Your task to perform on an android device: Go to Android settings Image 0: 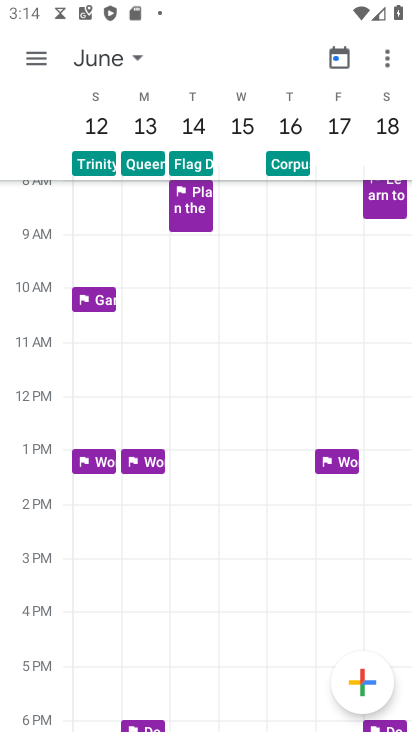
Step 0: press home button
Your task to perform on an android device: Go to Android settings Image 1: 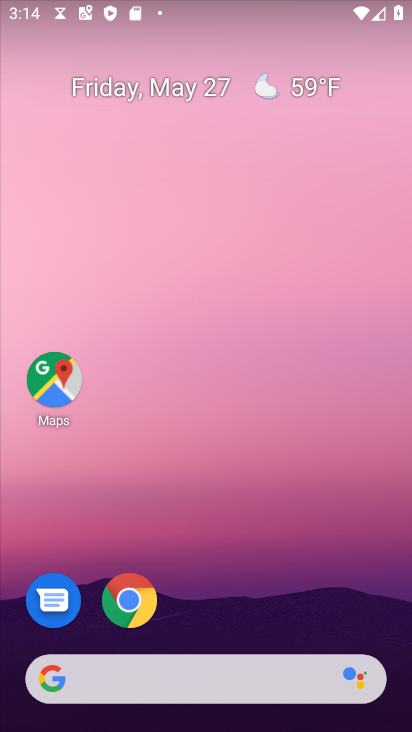
Step 1: drag from (244, 584) to (245, 43)
Your task to perform on an android device: Go to Android settings Image 2: 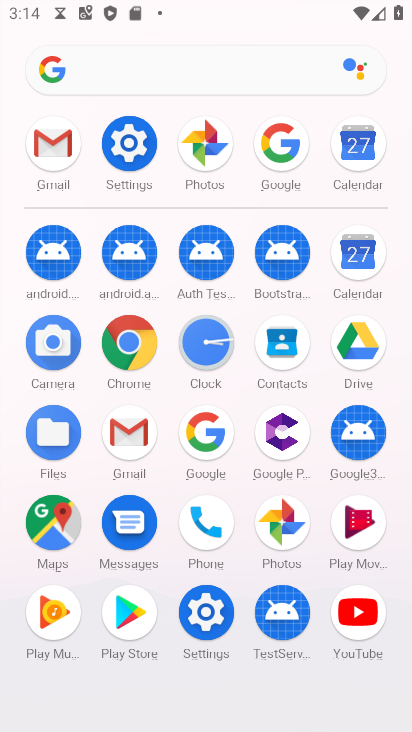
Step 2: click (127, 145)
Your task to perform on an android device: Go to Android settings Image 3: 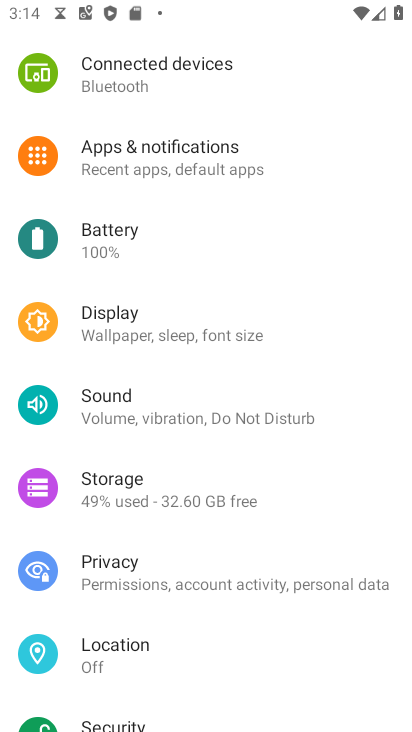
Step 3: task complete